Your task to perform on an android device: open app "Adobe Express: Graphic Design" (install if not already installed) Image 0: 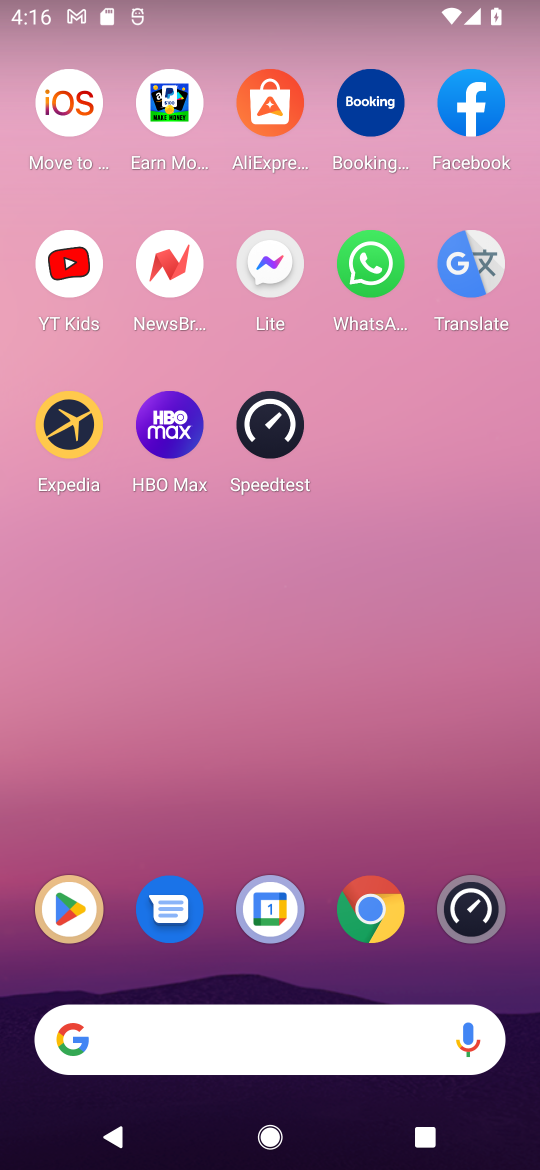
Step 0: click (73, 940)
Your task to perform on an android device: open app "Adobe Express: Graphic Design" (install if not already installed) Image 1: 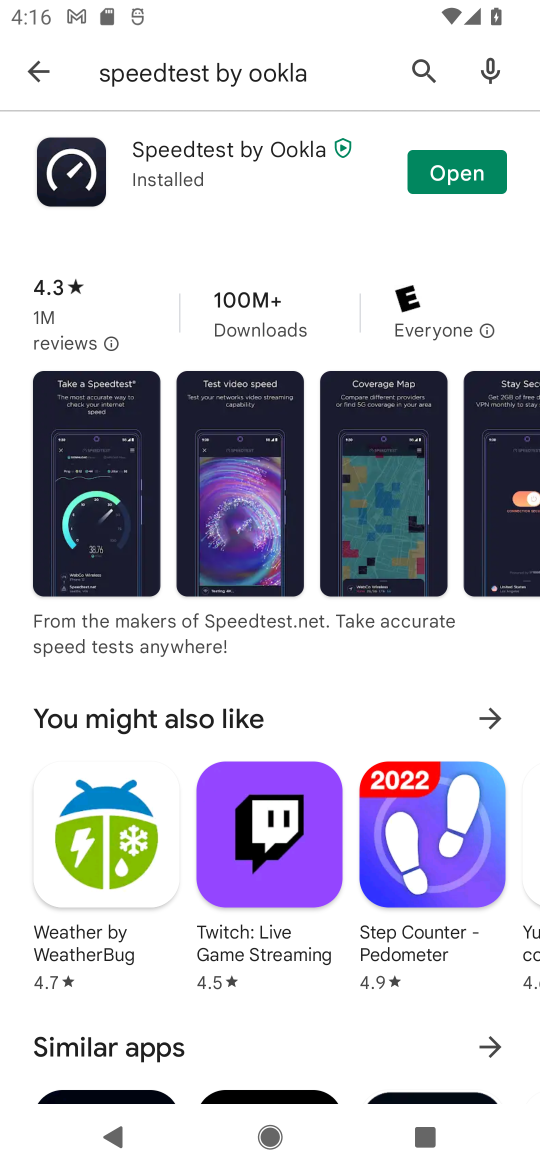
Step 1: click (225, 88)
Your task to perform on an android device: open app "Adobe Express: Graphic Design" (install if not already installed) Image 2: 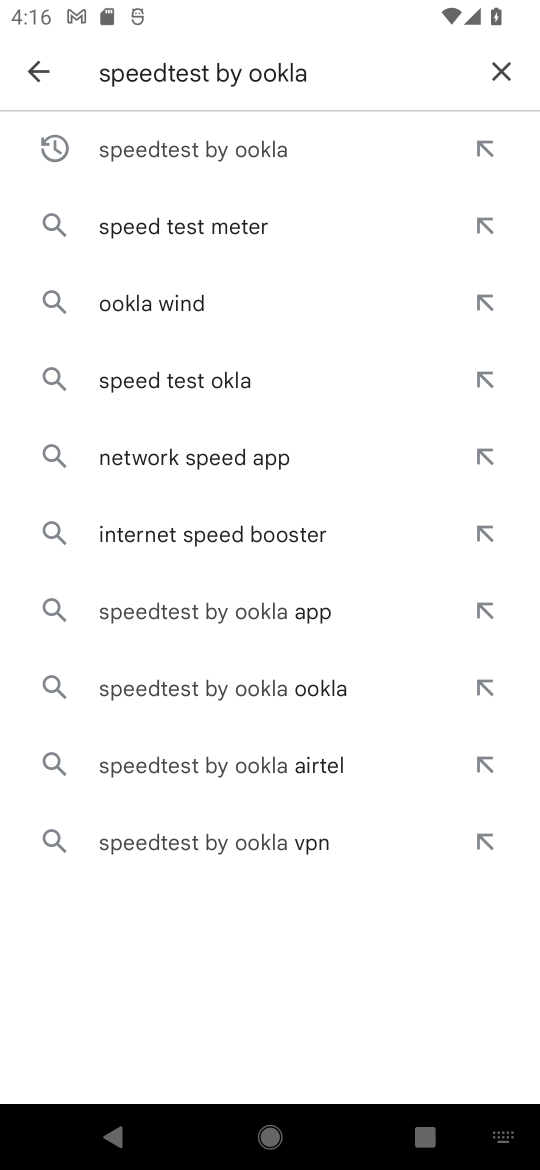
Step 2: click (502, 72)
Your task to perform on an android device: open app "Adobe Express: Graphic Design" (install if not already installed) Image 3: 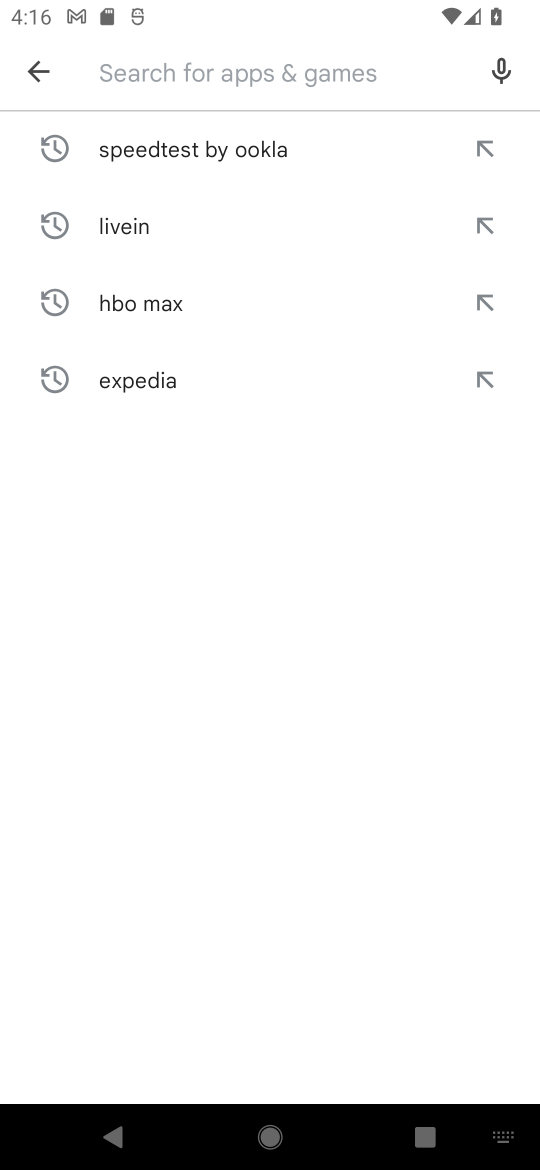
Step 3: type "Adobe Express"
Your task to perform on an android device: open app "Adobe Express: Graphic Design" (install if not already installed) Image 4: 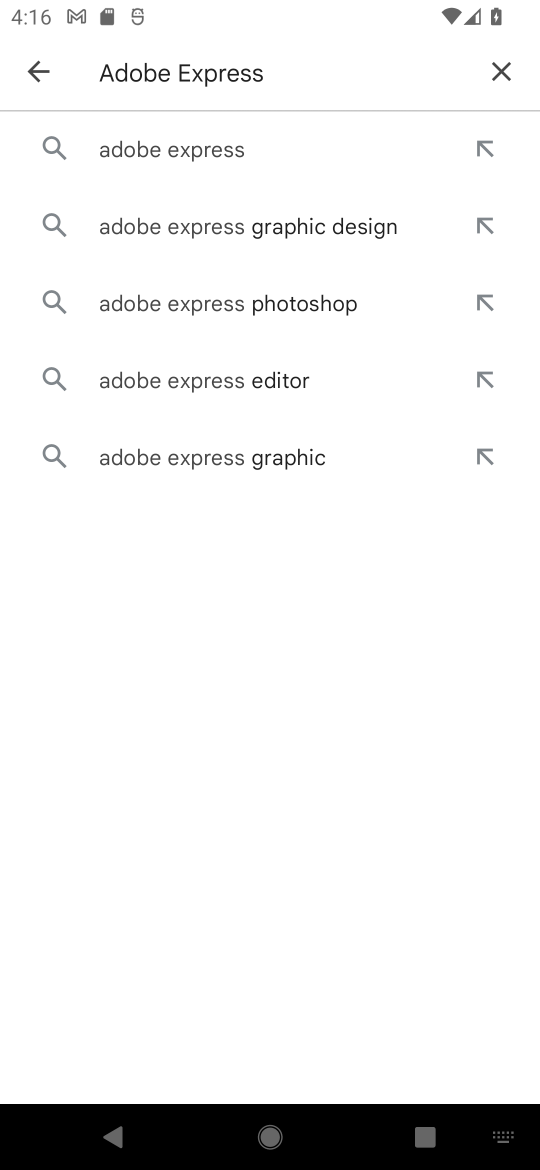
Step 4: click (223, 151)
Your task to perform on an android device: open app "Adobe Express: Graphic Design" (install if not already installed) Image 5: 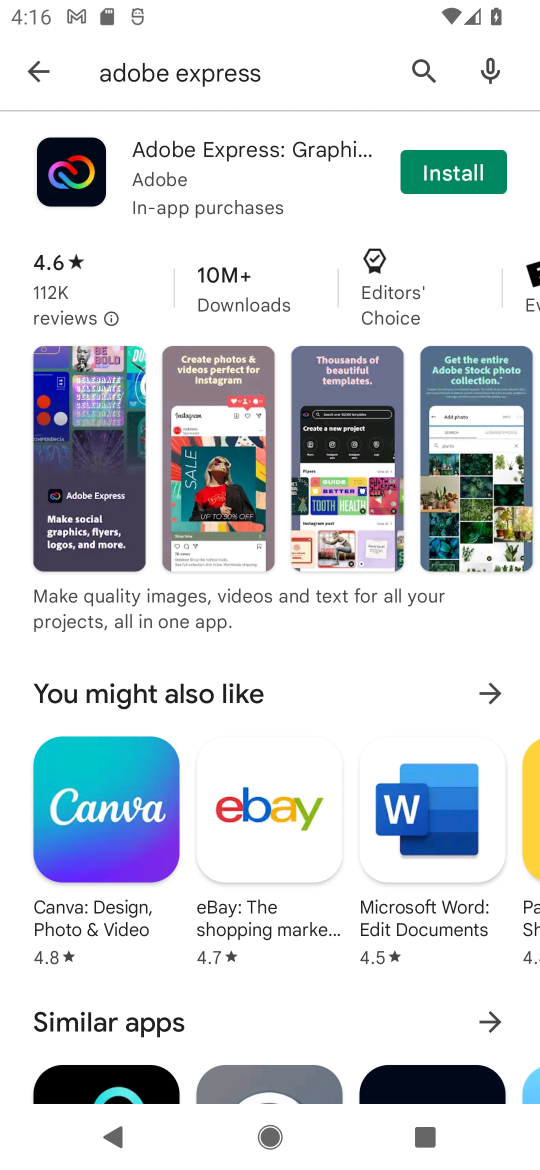
Step 5: click (484, 170)
Your task to perform on an android device: open app "Adobe Express: Graphic Design" (install if not already installed) Image 6: 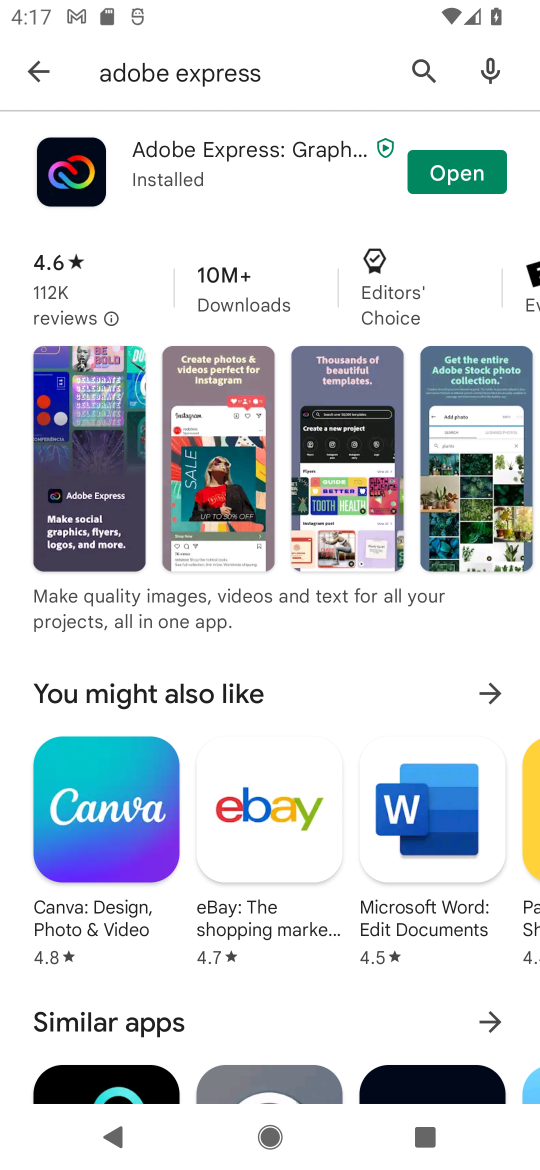
Step 6: click (471, 178)
Your task to perform on an android device: open app "Adobe Express: Graphic Design" (install if not already installed) Image 7: 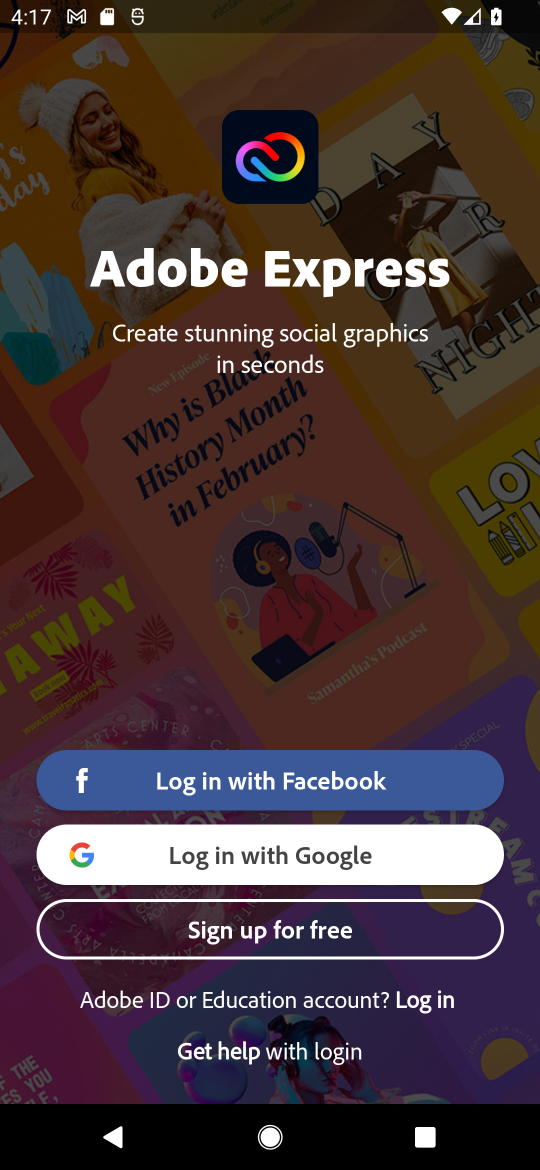
Step 7: click (273, 861)
Your task to perform on an android device: open app "Adobe Express: Graphic Design" (install if not already installed) Image 8: 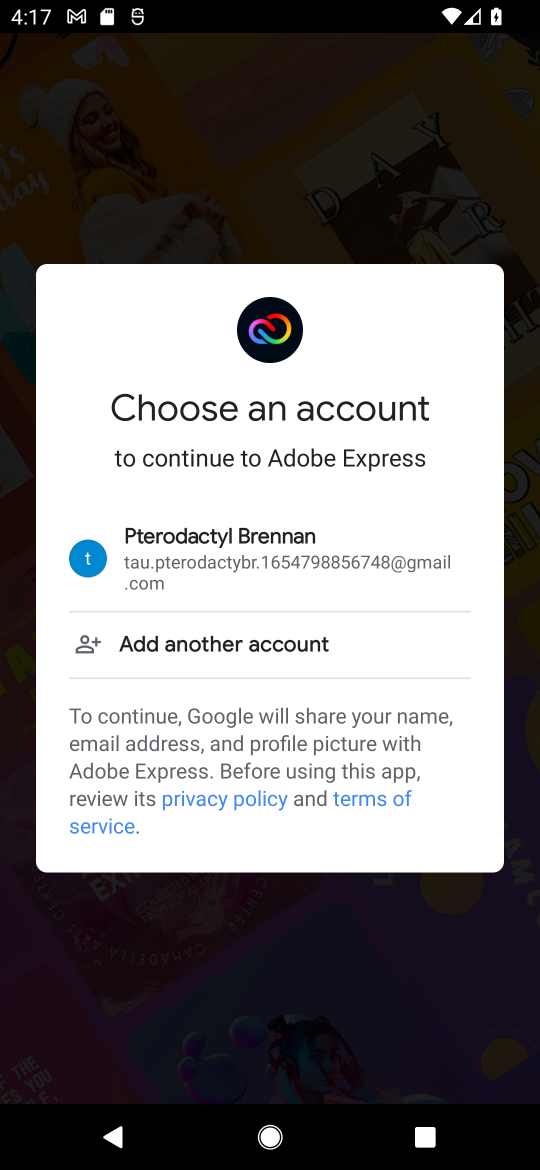
Step 8: click (303, 565)
Your task to perform on an android device: open app "Adobe Express: Graphic Design" (install if not already installed) Image 9: 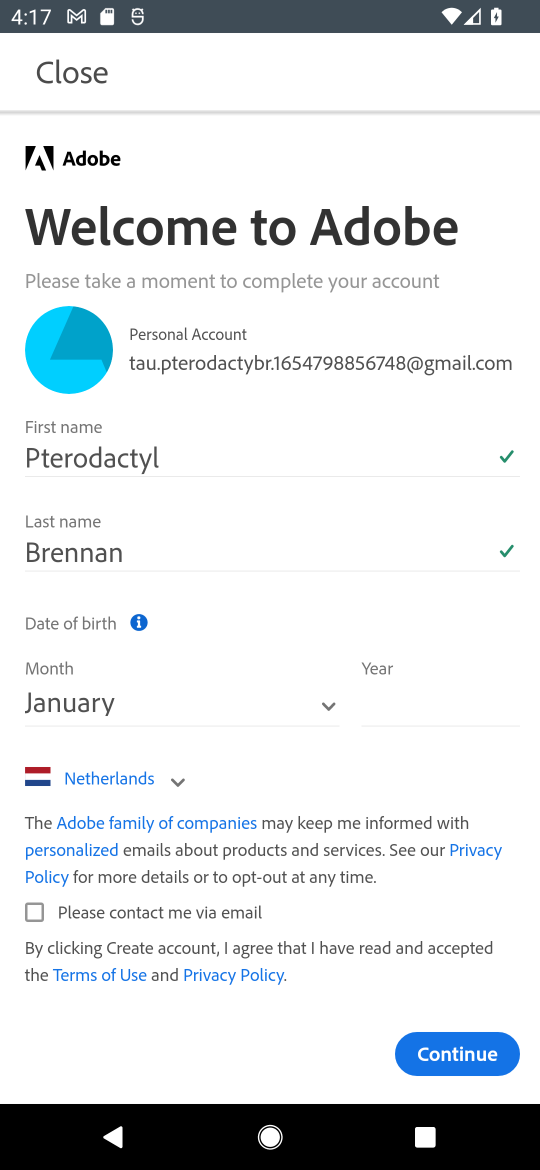
Step 9: task complete